Your task to perform on an android device: set default search engine in the chrome app Image 0: 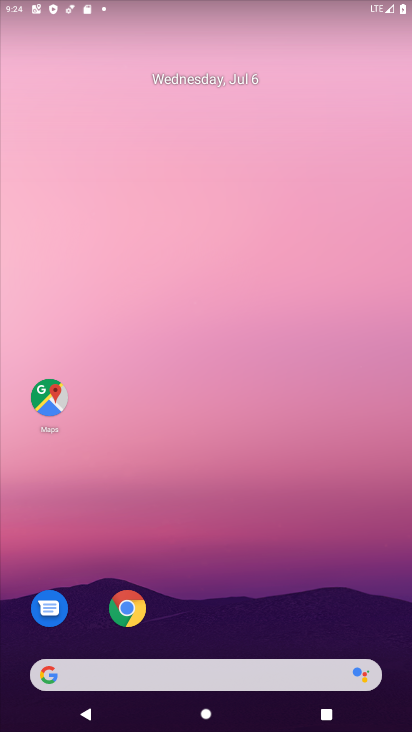
Step 0: click (126, 607)
Your task to perform on an android device: set default search engine in the chrome app Image 1: 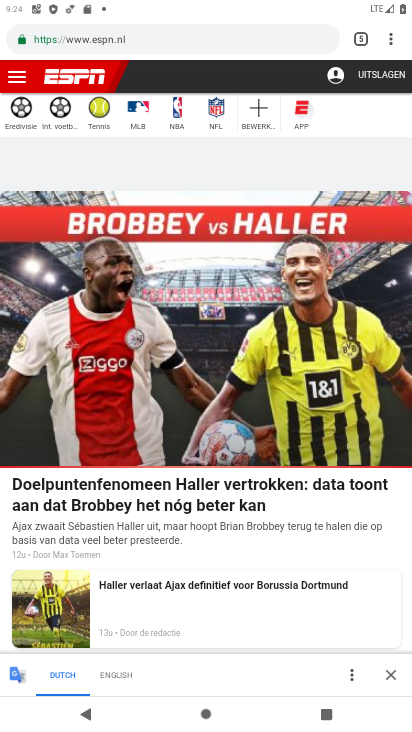
Step 1: click (392, 38)
Your task to perform on an android device: set default search engine in the chrome app Image 2: 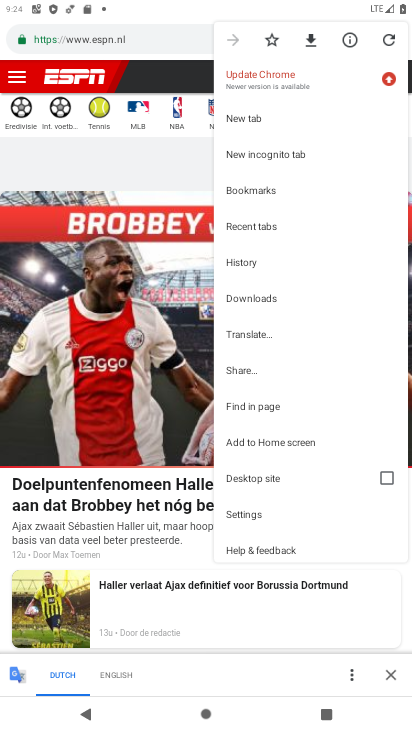
Step 2: click (249, 511)
Your task to perform on an android device: set default search engine in the chrome app Image 3: 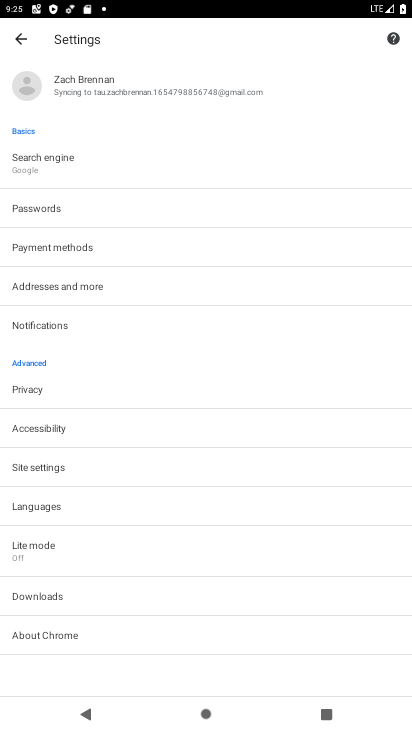
Step 3: click (32, 155)
Your task to perform on an android device: set default search engine in the chrome app Image 4: 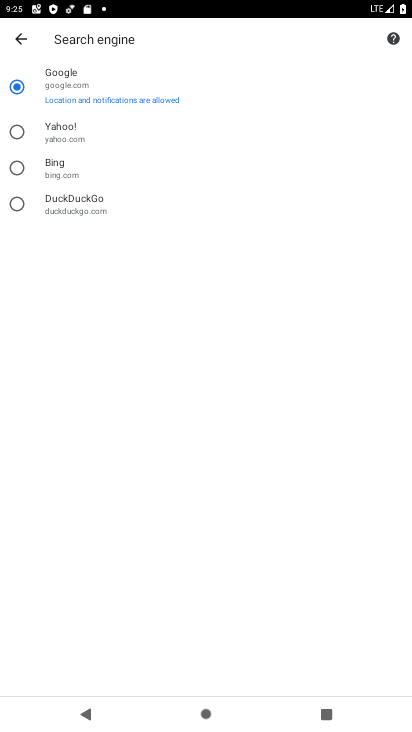
Step 4: click (13, 127)
Your task to perform on an android device: set default search engine in the chrome app Image 5: 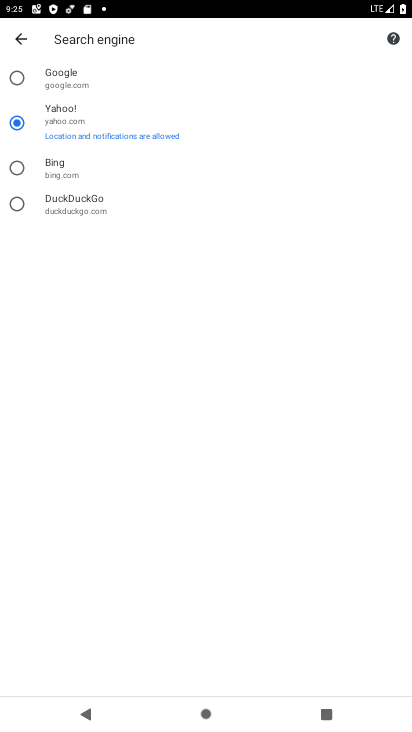
Step 5: task complete